Your task to perform on an android device: Go to Android settings Image 0: 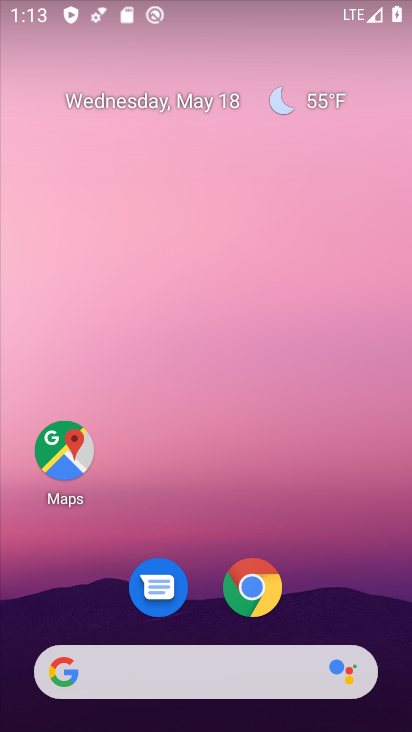
Step 0: drag from (207, 658) to (227, 249)
Your task to perform on an android device: Go to Android settings Image 1: 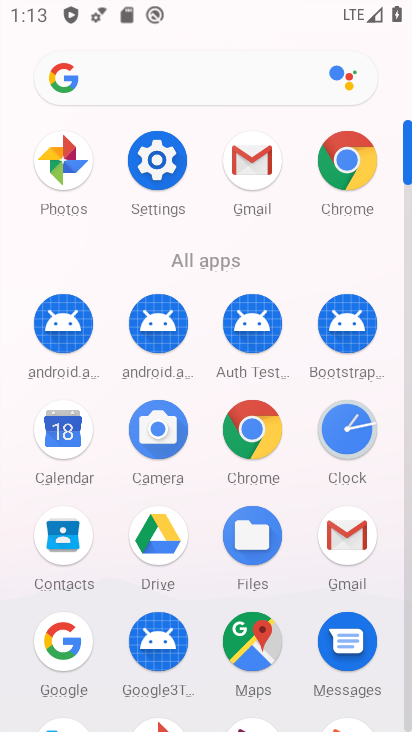
Step 1: click (161, 171)
Your task to perform on an android device: Go to Android settings Image 2: 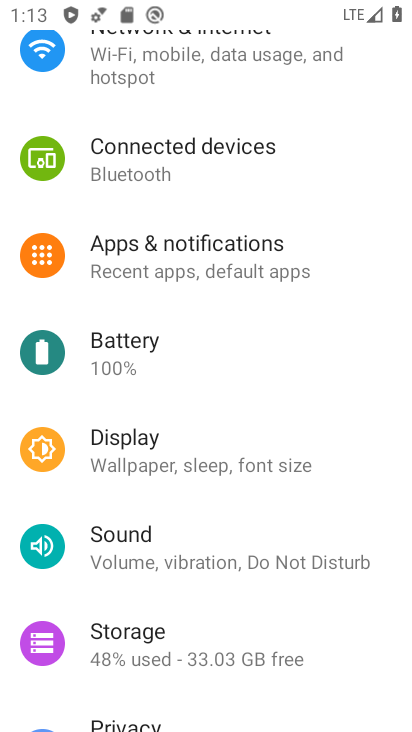
Step 2: task complete